Your task to perform on an android device: turn on notifications settings in the gmail app Image 0: 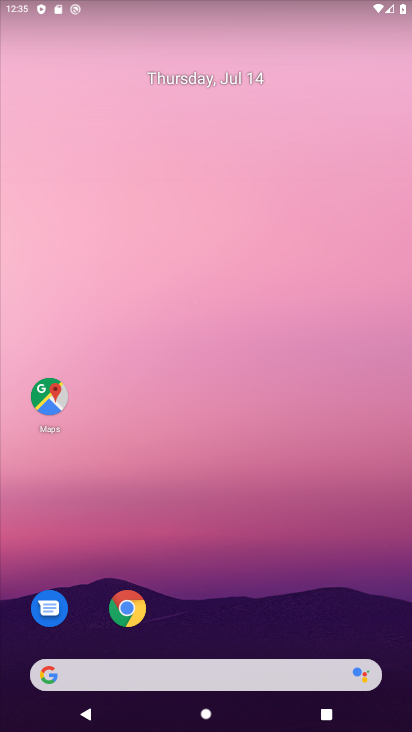
Step 0: drag from (214, 604) to (224, 359)
Your task to perform on an android device: turn on notifications settings in the gmail app Image 1: 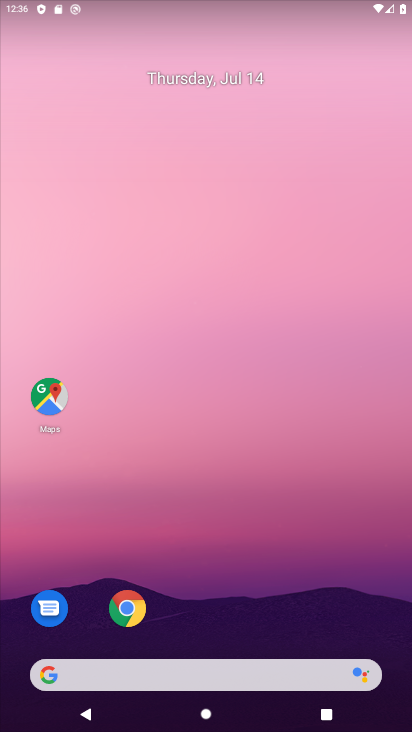
Step 1: drag from (177, 636) to (278, 9)
Your task to perform on an android device: turn on notifications settings in the gmail app Image 2: 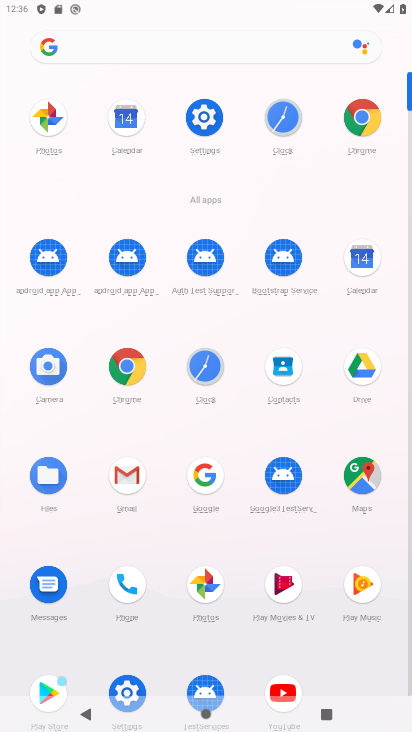
Step 2: click (125, 471)
Your task to perform on an android device: turn on notifications settings in the gmail app Image 3: 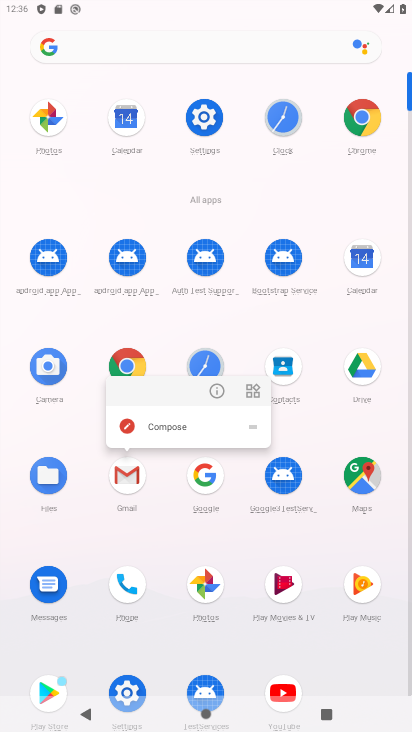
Step 3: click (216, 397)
Your task to perform on an android device: turn on notifications settings in the gmail app Image 4: 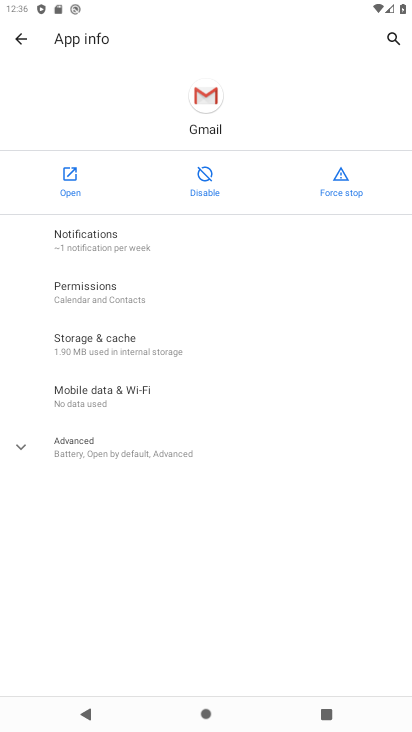
Step 4: click (77, 183)
Your task to perform on an android device: turn on notifications settings in the gmail app Image 5: 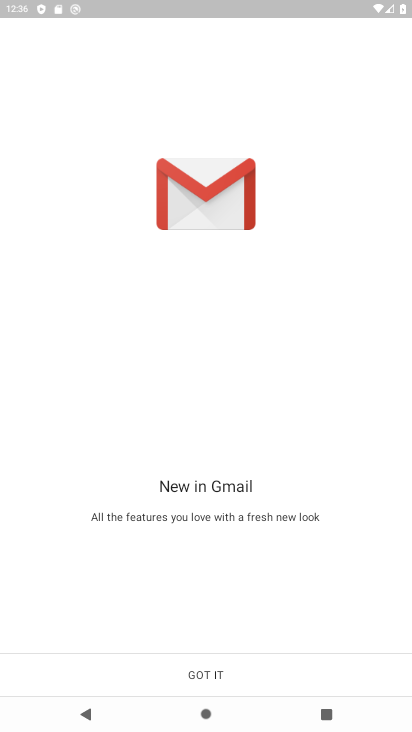
Step 5: click (192, 671)
Your task to perform on an android device: turn on notifications settings in the gmail app Image 6: 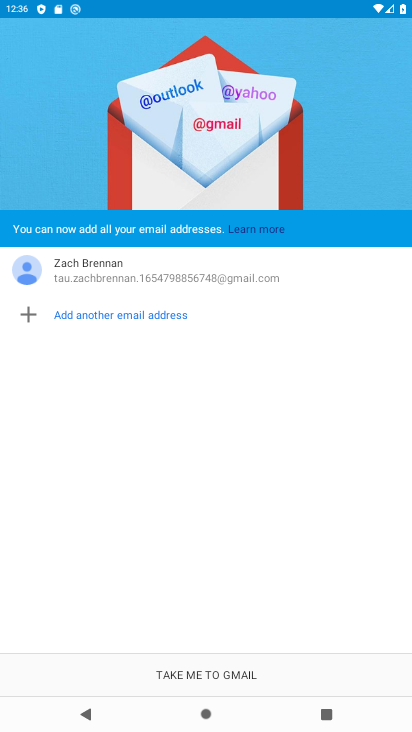
Step 6: click (203, 680)
Your task to perform on an android device: turn on notifications settings in the gmail app Image 7: 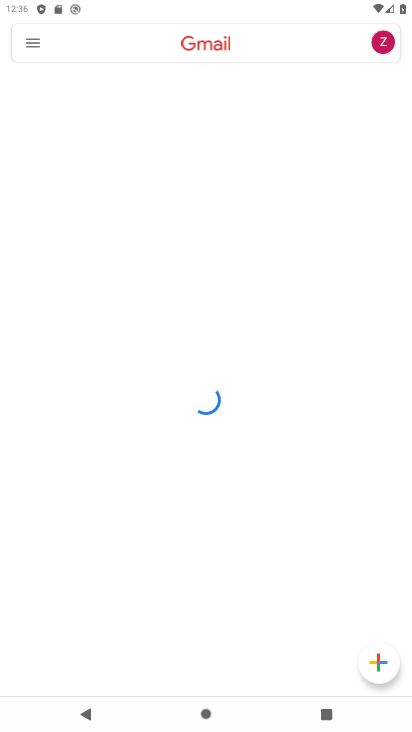
Step 7: drag from (205, 613) to (205, 269)
Your task to perform on an android device: turn on notifications settings in the gmail app Image 8: 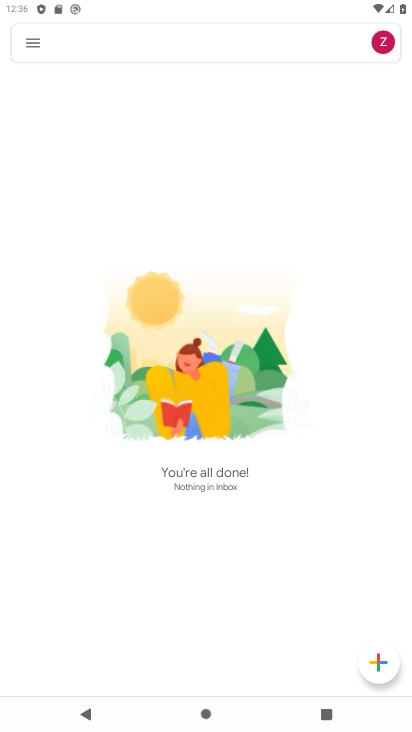
Step 8: drag from (206, 560) to (211, 415)
Your task to perform on an android device: turn on notifications settings in the gmail app Image 9: 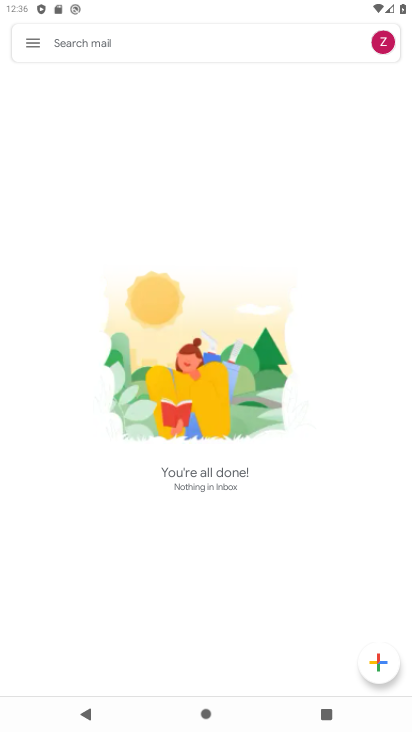
Step 9: drag from (170, 627) to (185, 436)
Your task to perform on an android device: turn on notifications settings in the gmail app Image 10: 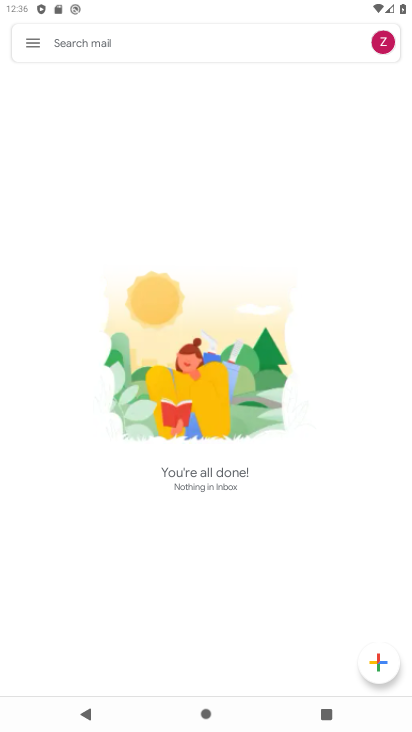
Step 10: click (34, 41)
Your task to perform on an android device: turn on notifications settings in the gmail app Image 11: 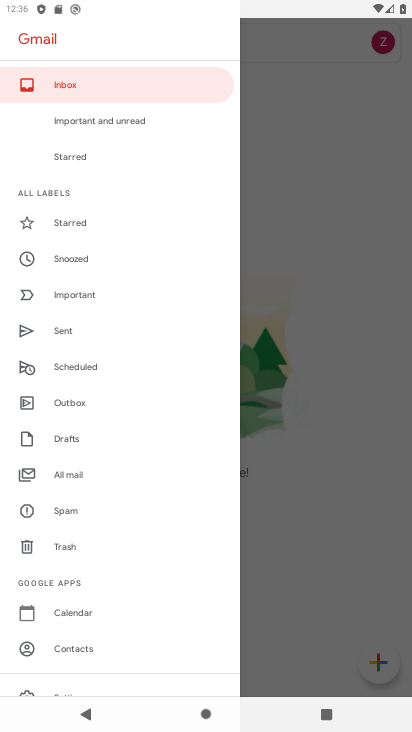
Step 11: drag from (78, 629) to (108, 225)
Your task to perform on an android device: turn on notifications settings in the gmail app Image 12: 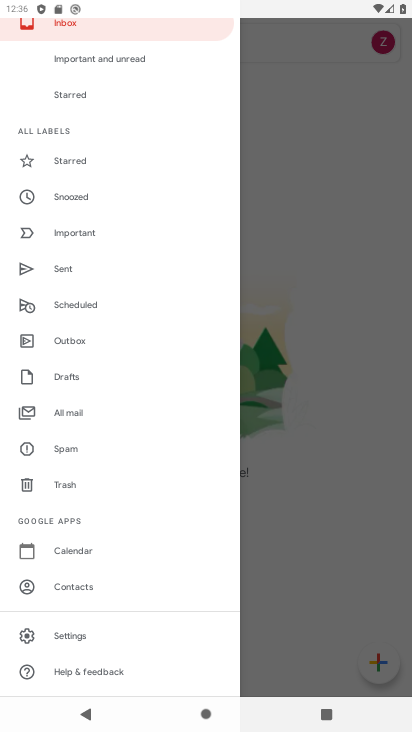
Step 12: click (74, 637)
Your task to perform on an android device: turn on notifications settings in the gmail app Image 13: 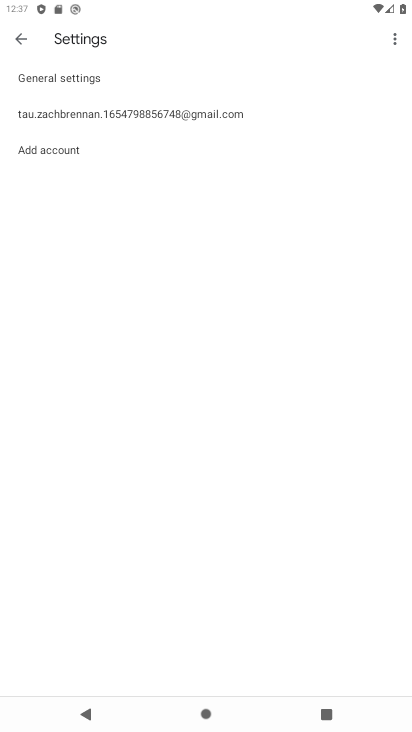
Step 13: drag from (168, 521) to (231, 171)
Your task to perform on an android device: turn on notifications settings in the gmail app Image 14: 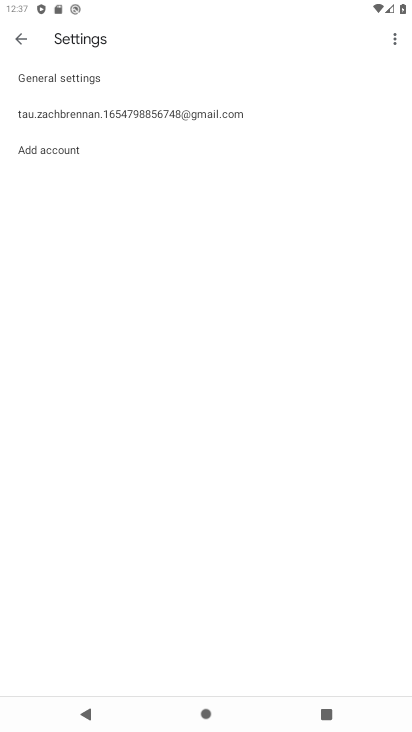
Step 14: click (183, 106)
Your task to perform on an android device: turn on notifications settings in the gmail app Image 15: 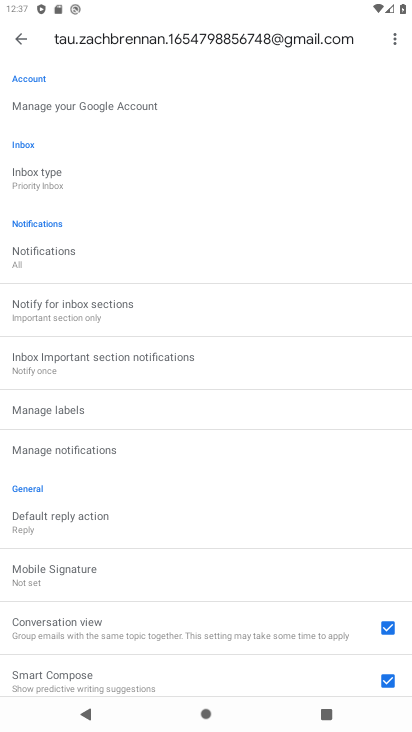
Step 15: drag from (153, 626) to (199, 353)
Your task to perform on an android device: turn on notifications settings in the gmail app Image 16: 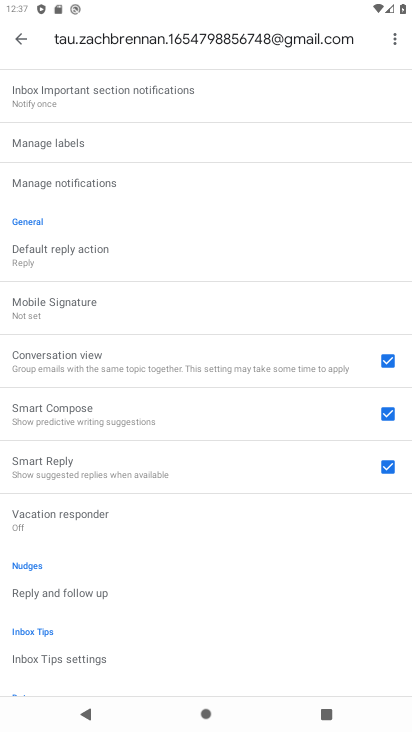
Step 16: click (123, 173)
Your task to perform on an android device: turn on notifications settings in the gmail app Image 17: 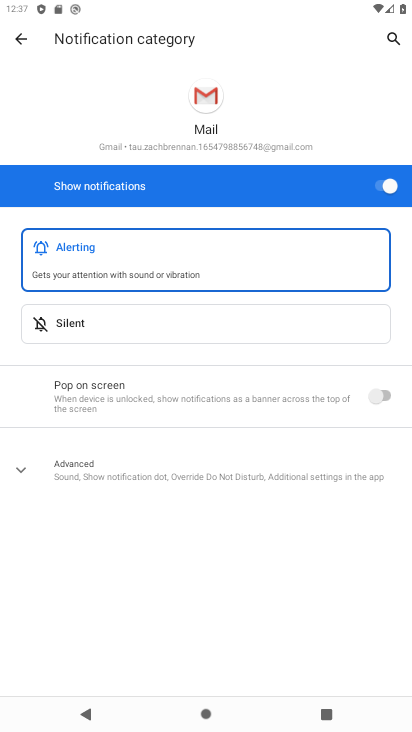
Step 17: drag from (197, 565) to (184, 332)
Your task to perform on an android device: turn on notifications settings in the gmail app Image 18: 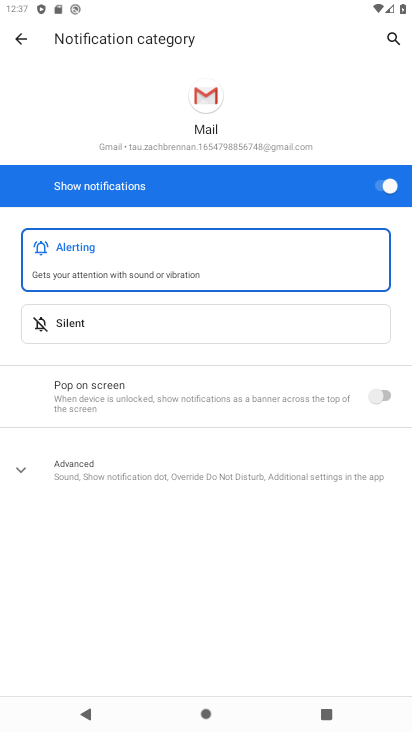
Step 18: drag from (206, 506) to (198, 403)
Your task to perform on an android device: turn on notifications settings in the gmail app Image 19: 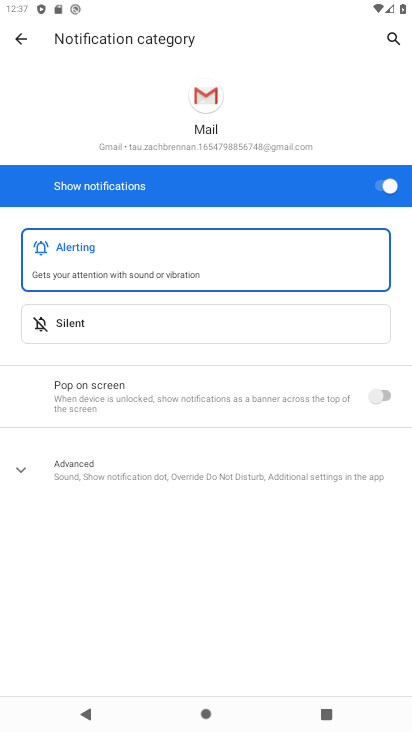
Step 19: drag from (184, 566) to (184, 405)
Your task to perform on an android device: turn on notifications settings in the gmail app Image 20: 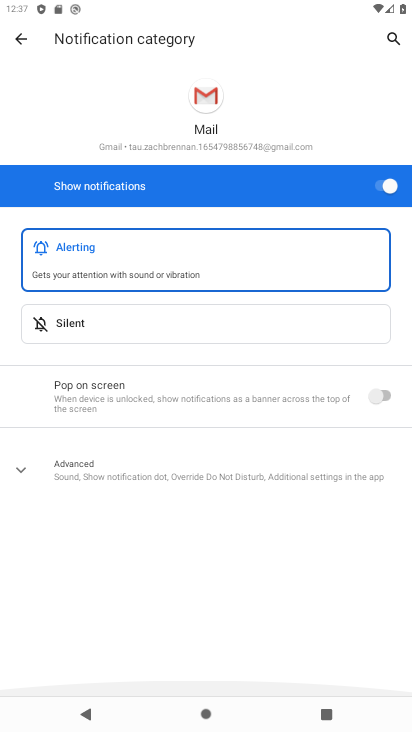
Step 20: drag from (184, 249) to (232, 617)
Your task to perform on an android device: turn on notifications settings in the gmail app Image 21: 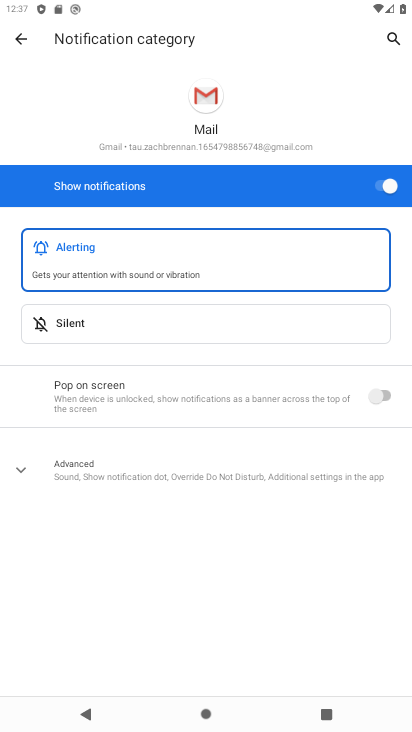
Step 21: drag from (275, 558) to (305, 368)
Your task to perform on an android device: turn on notifications settings in the gmail app Image 22: 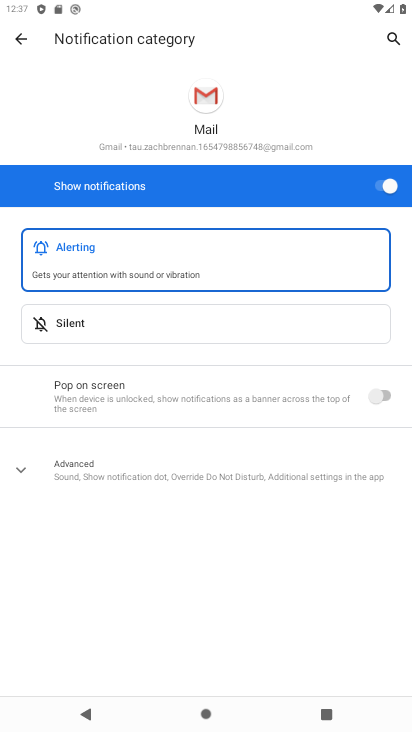
Step 22: drag from (239, 278) to (273, 731)
Your task to perform on an android device: turn on notifications settings in the gmail app Image 23: 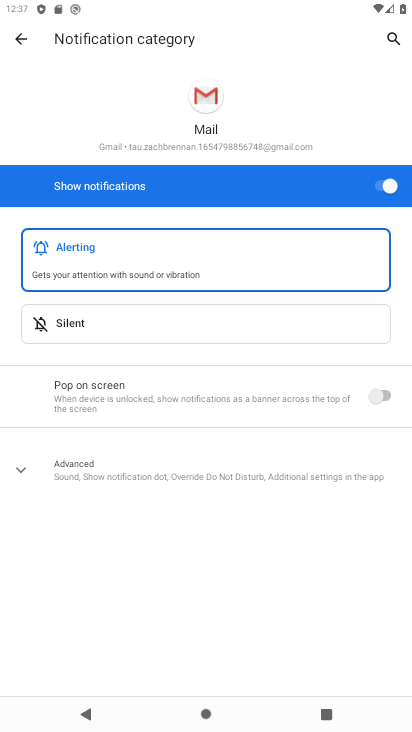
Step 23: drag from (220, 562) to (228, 252)
Your task to perform on an android device: turn on notifications settings in the gmail app Image 24: 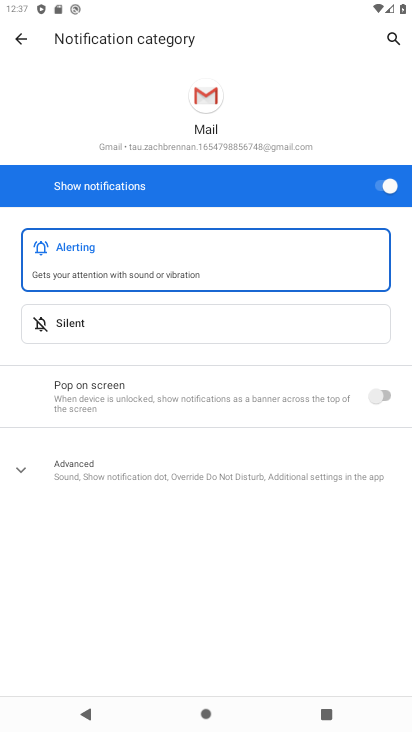
Step 24: drag from (218, 590) to (218, 237)
Your task to perform on an android device: turn on notifications settings in the gmail app Image 25: 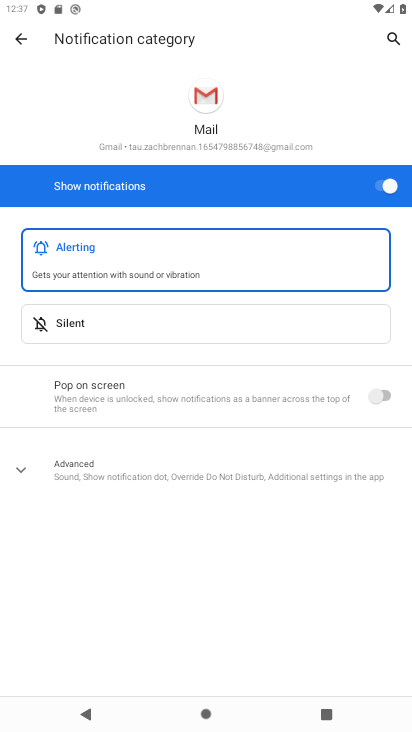
Step 25: drag from (230, 596) to (226, 252)
Your task to perform on an android device: turn on notifications settings in the gmail app Image 26: 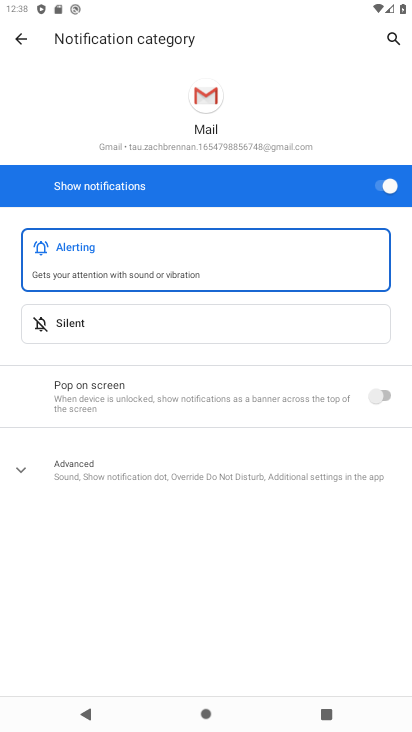
Step 26: click (391, 181)
Your task to perform on an android device: turn on notifications settings in the gmail app Image 27: 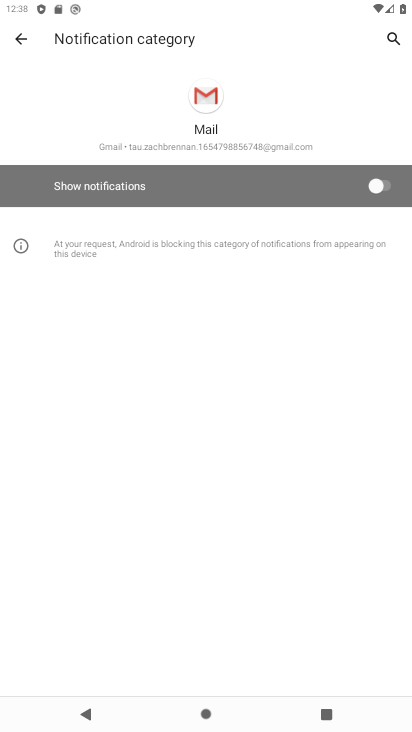
Step 27: click (384, 180)
Your task to perform on an android device: turn on notifications settings in the gmail app Image 28: 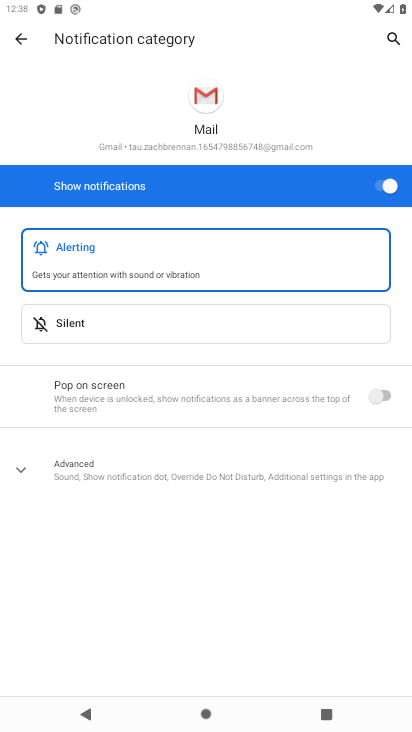
Step 28: task complete